Your task to perform on an android device: What's on my calendar today? Image 0: 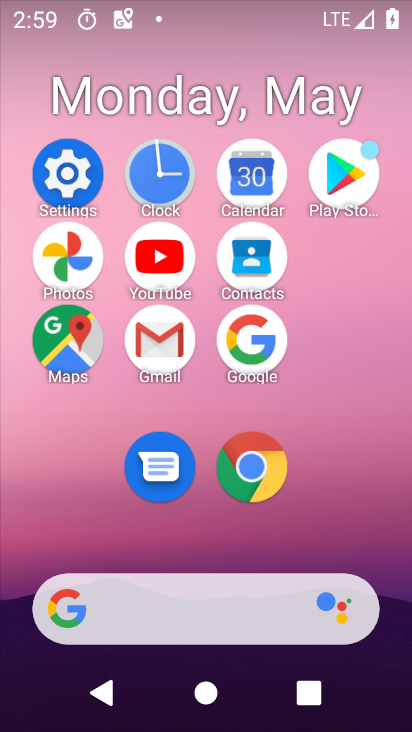
Step 0: press home button
Your task to perform on an android device: What's on my calendar today? Image 1: 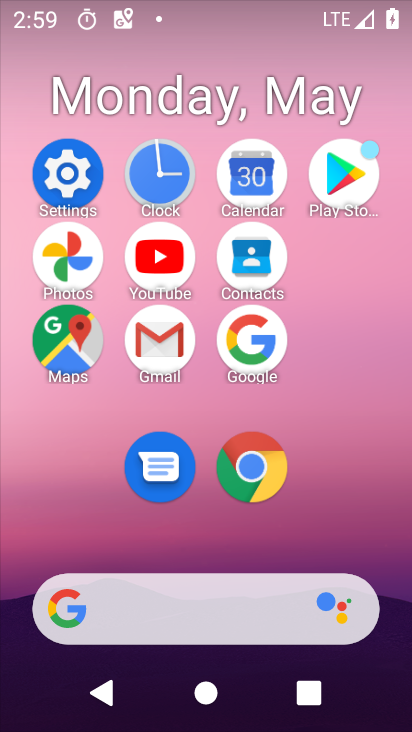
Step 1: click (260, 194)
Your task to perform on an android device: What's on my calendar today? Image 2: 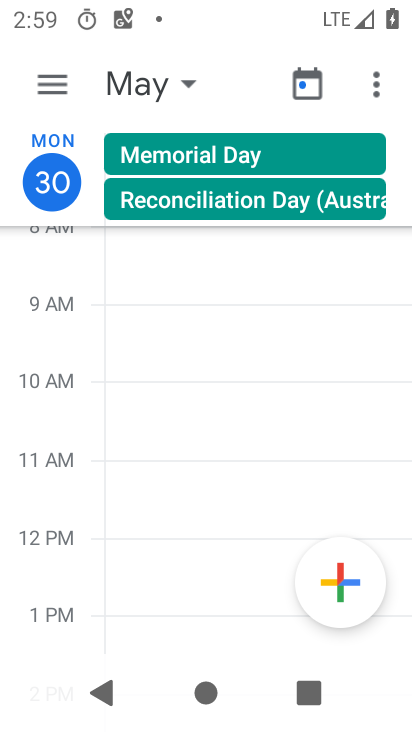
Step 2: task complete